Your task to perform on an android device: Open settings on Google Maps Image 0: 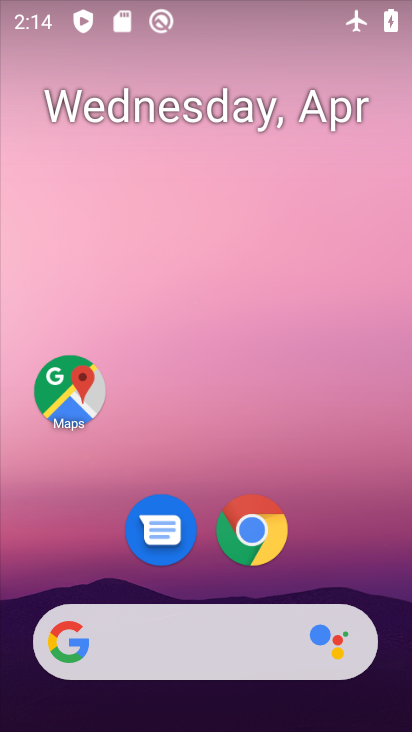
Step 0: drag from (313, 533) to (341, 21)
Your task to perform on an android device: Open settings on Google Maps Image 1: 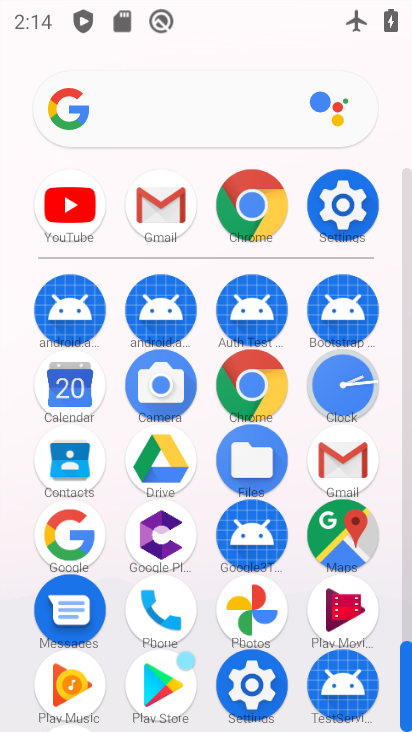
Step 1: drag from (208, 565) to (236, 302)
Your task to perform on an android device: Open settings on Google Maps Image 2: 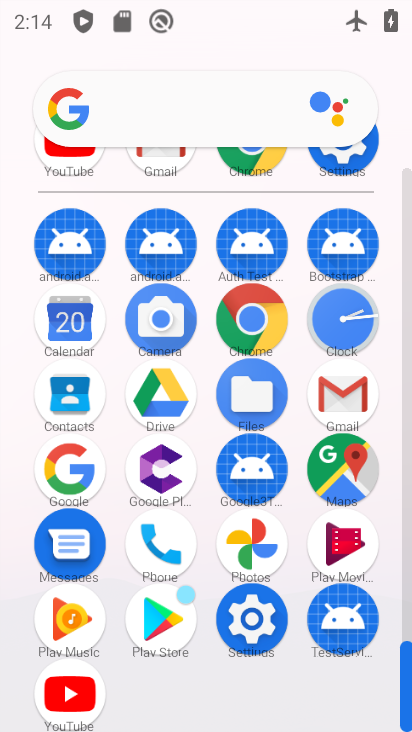
Step 2: click (343, 477)
Your task to perform on an android device: Open settings on Google Maps Image 3: 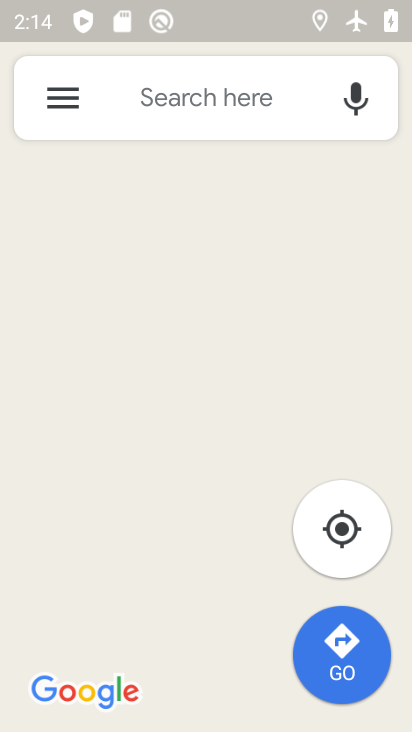
Step 3: click (62, 96)
Your task to perform on an android device: Open settings on Google Maps Image 4: 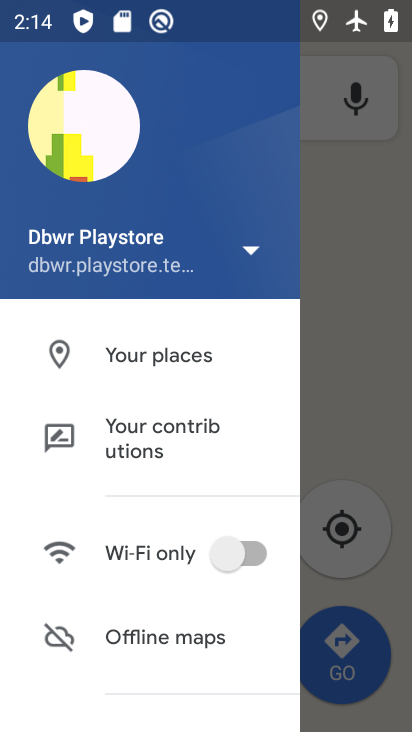
Step 4: drag from (178, 609) to (252, 152)
Your task to perform on an android device: Open settings on Google Maps Image 5: 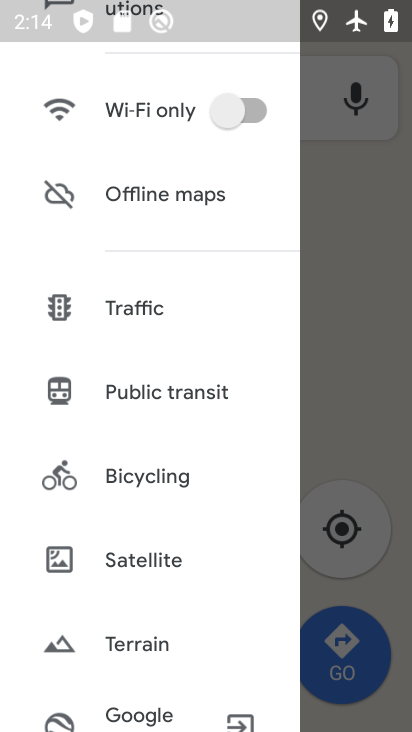
Step 5: drag from (204, 613) to (245, 203)
Your task to perform on an android device: Open settings on Google Maps Image 6: 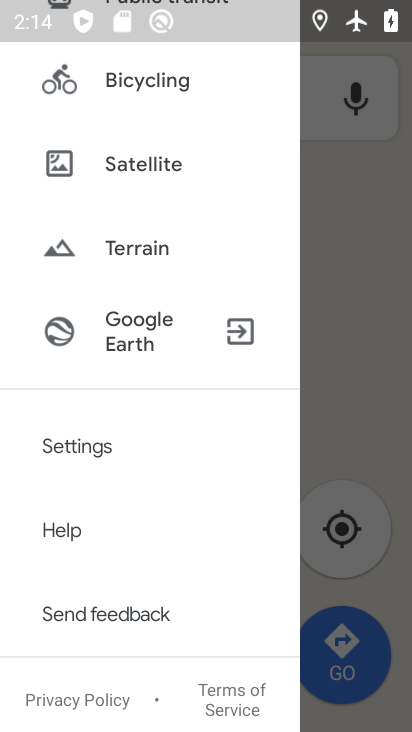
Step 6: click (80, 455)
Your task to perform on an android device: Open settings on Google Maps Image 7: 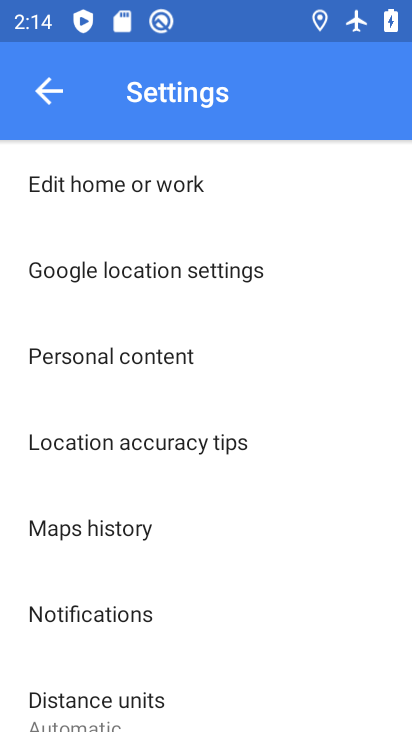
Step 7: task complete